Your task to perform on an android device: search for starred emails in the gmail app Image 0: 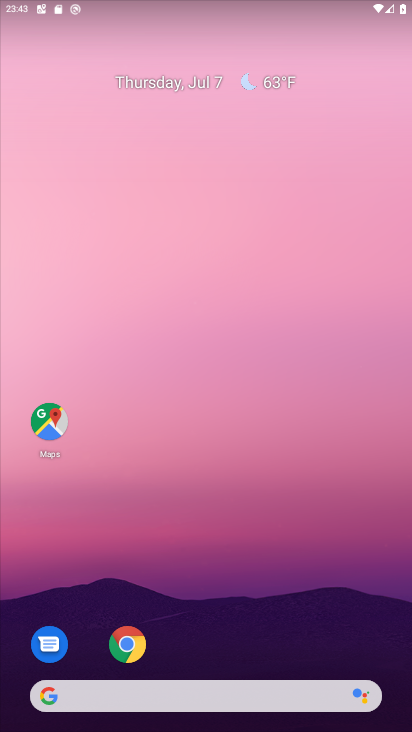
Step 0: drag from (232, 726) to (236, 571)
Your task to perform on an android device: search for starred emails in the gmail app Image 1: 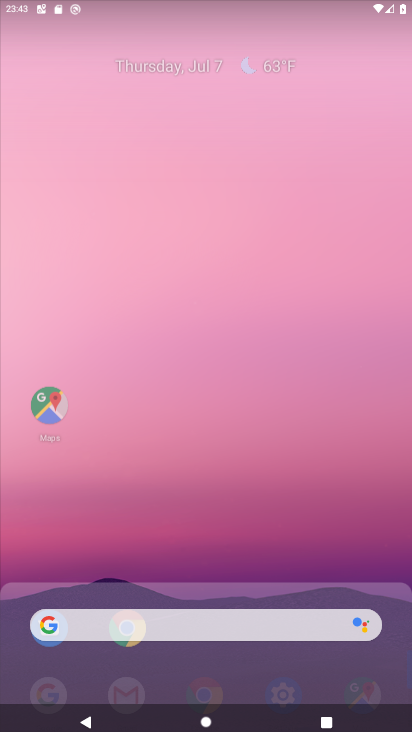
Step 1: click (252, 38)
Your task to perform on an android device: search for starred emails in the gmail app Image 2: 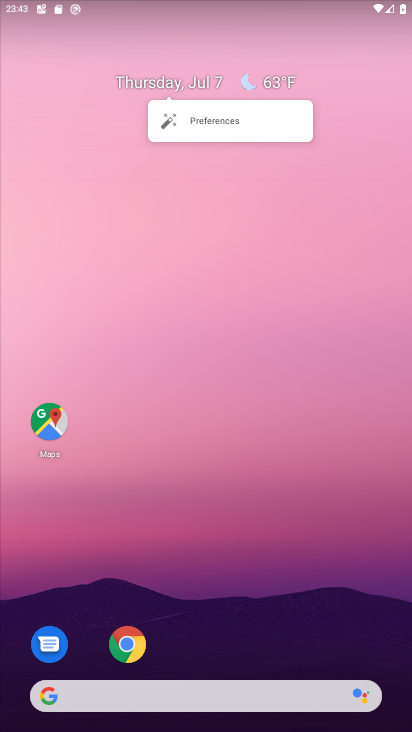
Step 2: click (198, 380)
Your task to perform on an android device: search for starred emails in the gmail app Image 3: 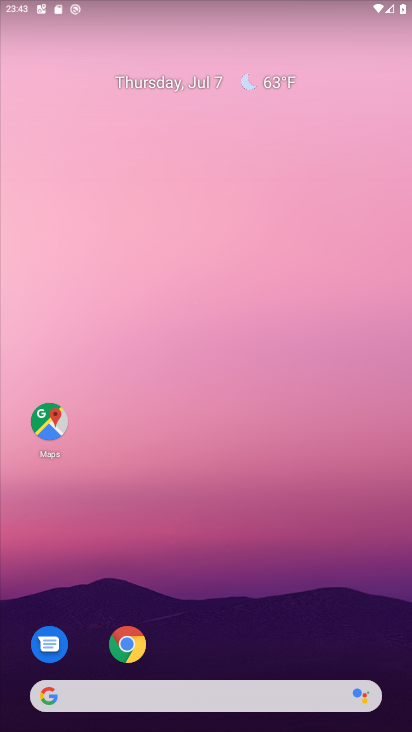
Step 3: drag from (230, 728) to (236, 103)
Your task to perform on an android device: search for starred emails in the gmail app Image 4: 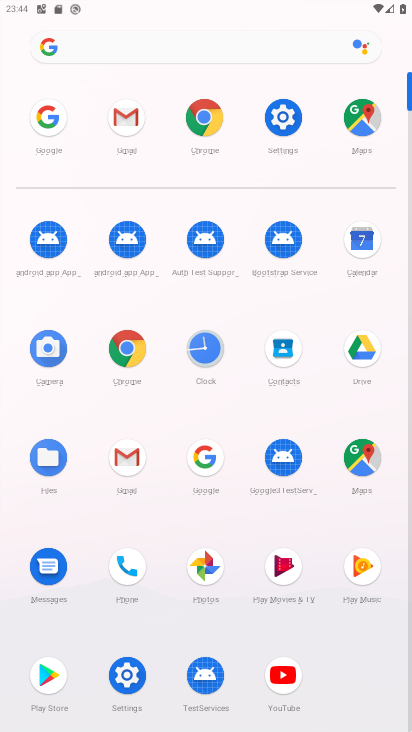
Step 4: click (128, 457)
Your task to perform on an android device: search for starred emails in the gmail app Image 5: 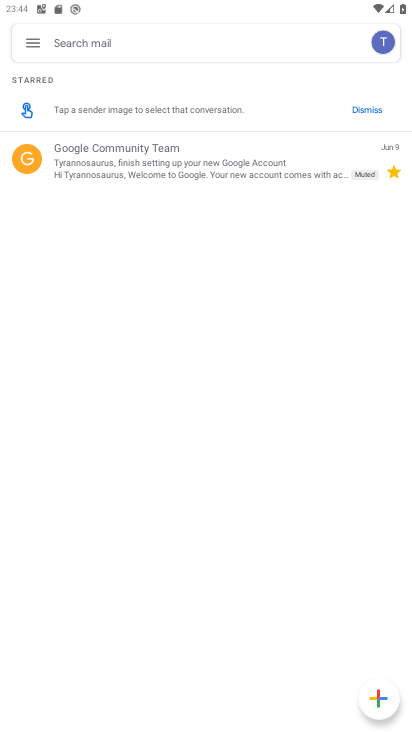
Step 5: task complete